Your task to perform on an android device: toggle show notifications on the lock screen Image 0: 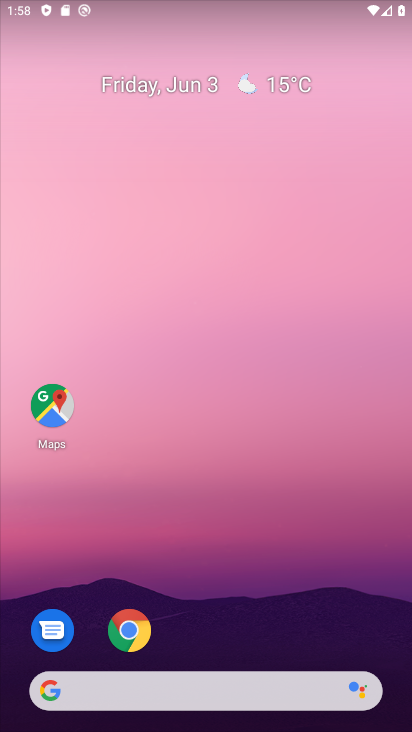
Step 0: press home button
Your task to perform on an android device: toggle show notifications on the lock screen Image 1: 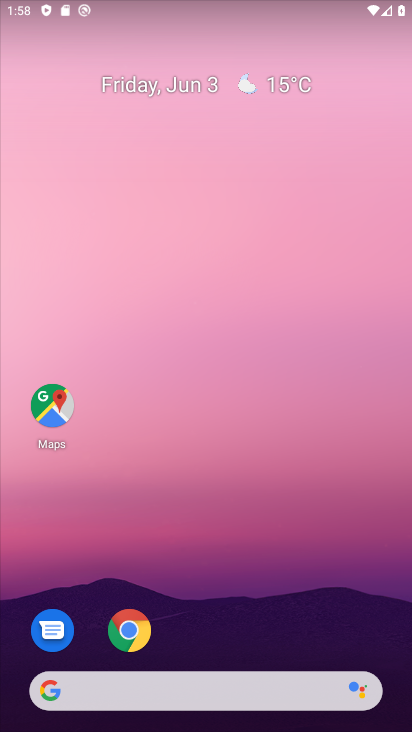
Step 1: drag from (228, 631) to (292, 11)
Your task to perform on an android device: toggle show notifications on the lock screen Image 2: 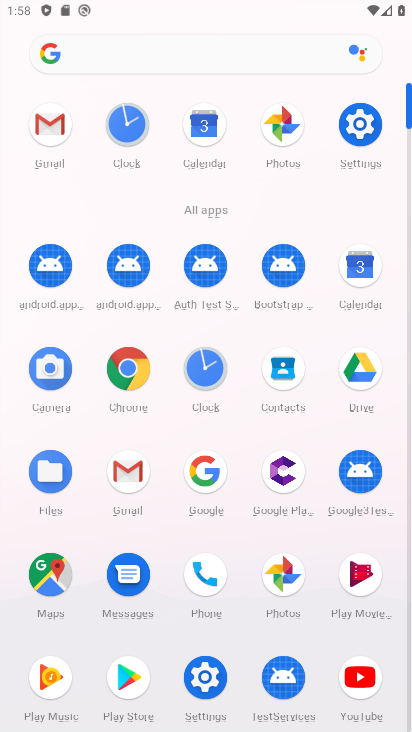
Step 2: click (346, 134)
Your task to perform on an android device: toggle show notifications on the lock screen Image 3: 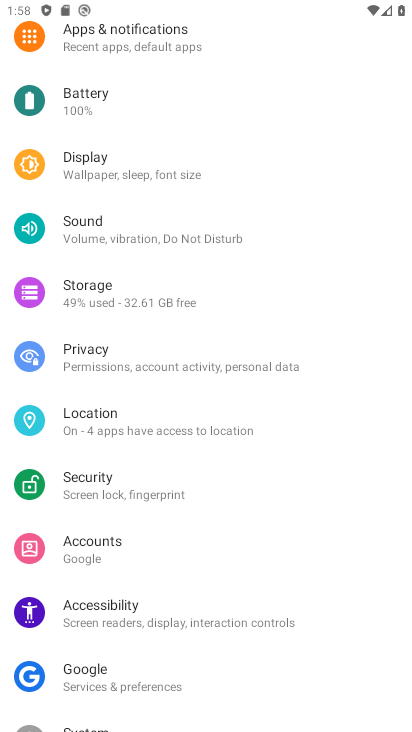
Step 3: drag from (167, 288) to (222, 504)
Your task to perform on an android device: toggle show notifications on the lock screen Image 4: 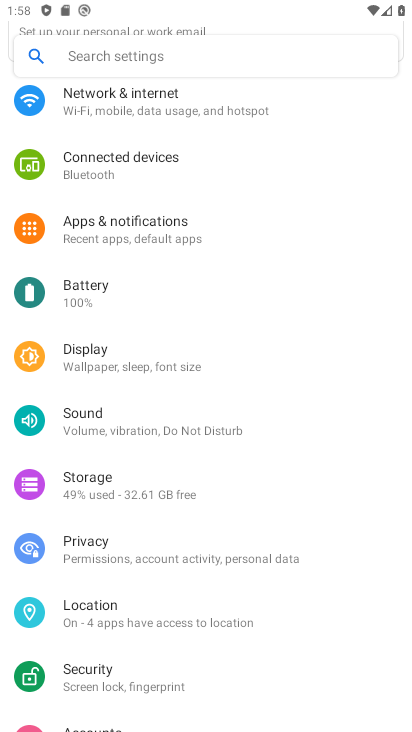
Step 4: click (174, 231)
Your task to perform on an android device: toggle show notifications on the lock screen Image 5: 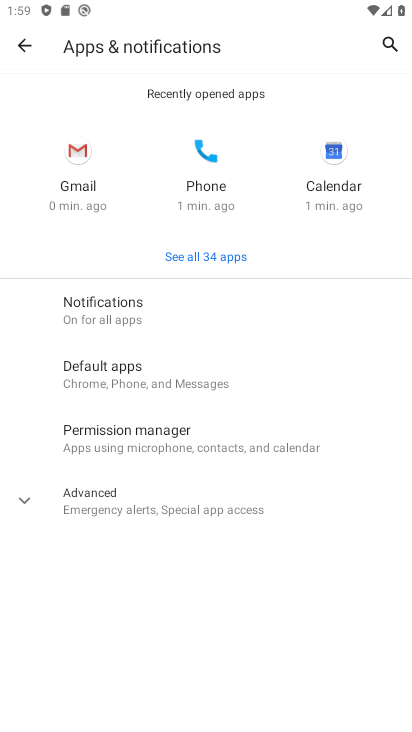
Step 5: click (137, 305)
Your task to perform on an android device: toggle show notifications on the lock screen Image 6: 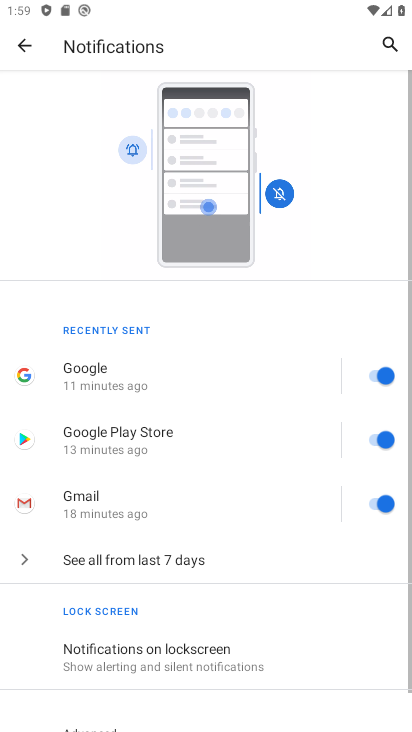
Step 6: drag from (124, 592) to (173, 378)
Your task to perform on an android device: toggle show notifications on the lock screen Image 7: 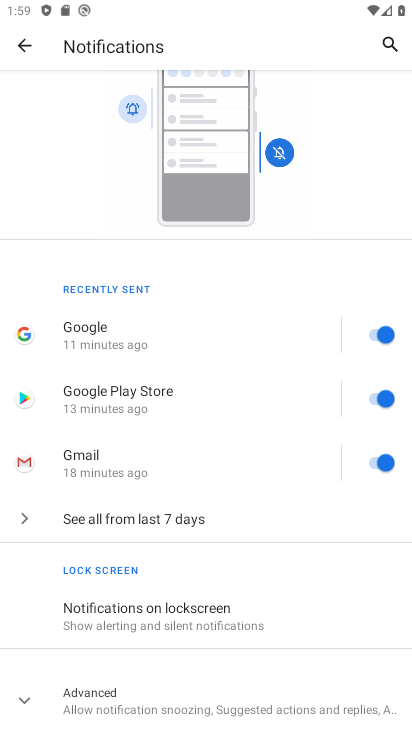
Step 7: click (161, 627)
Your task to perform on an android device: toggle show notifications on the lock screen Image 8: 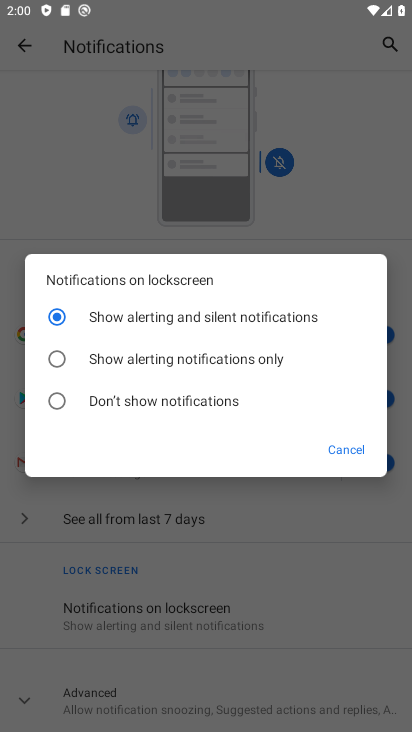
Step 8: click (184, 393)
Your task to perform on an android device: toggle show notifications on the lock screen Image 9: 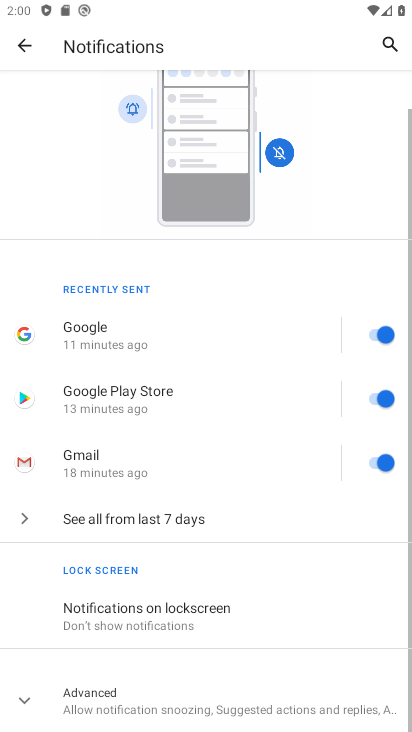
Step 9: task complete